Your task to perform on an android device: clear all cookies in the chrome app Image 0: 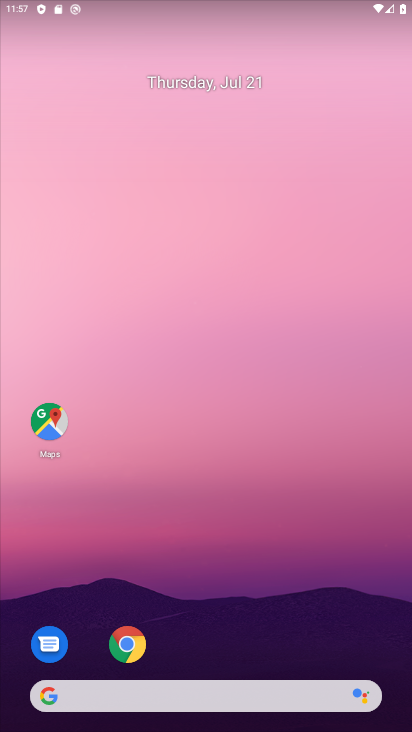
Step 0: drag from (237, 677) to (216, 188)
Your task to perform on an android device: clear all cookies in the chrome app Image 1: 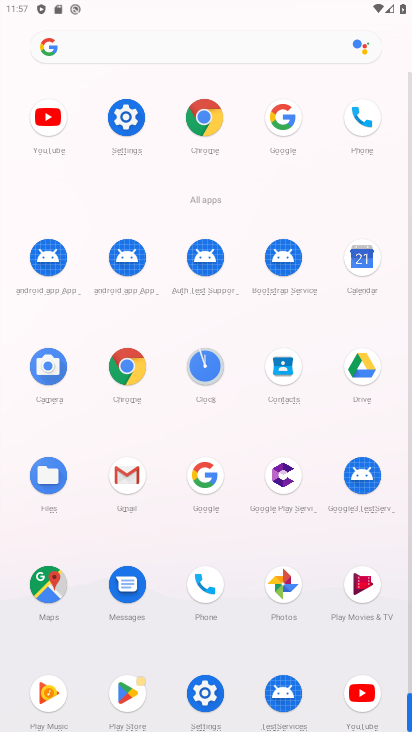
Step 1: click (189, 132)
Your task to perform on an android device: clear all cookies in the chrome app Image 2: 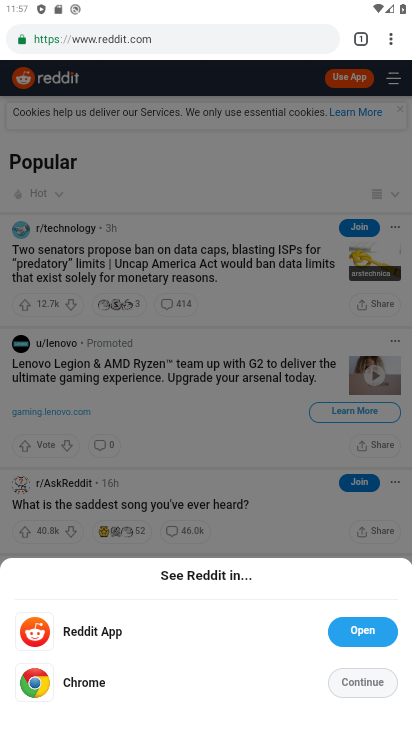
Step 2: click (383, 46)
Your task to perform on an android device: clear all cookies in the chrome app Image 3: 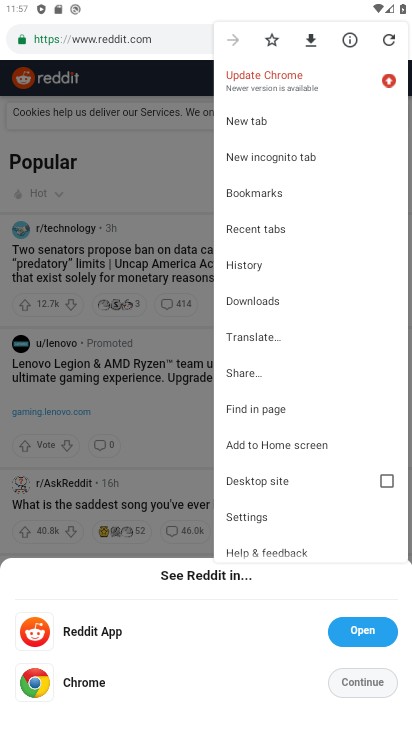
Step 3: click (257, 266)
Your task to perform on an android device: clear all cookies in the chrome app Image 4: 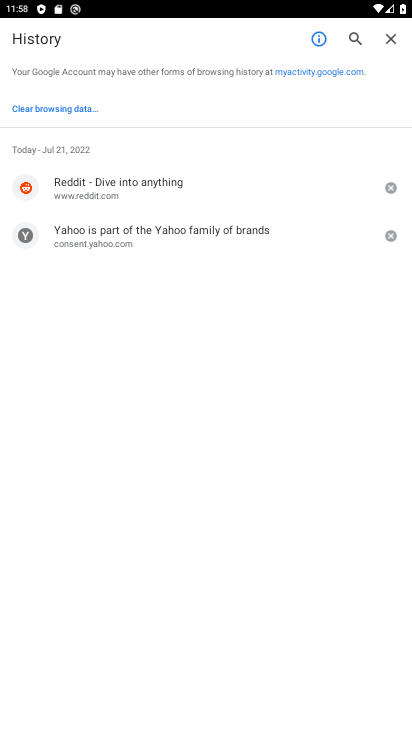
Step 4: click (58, 111)
Your task to perform on an android device: clear all cookies in the chrome app Image 5: 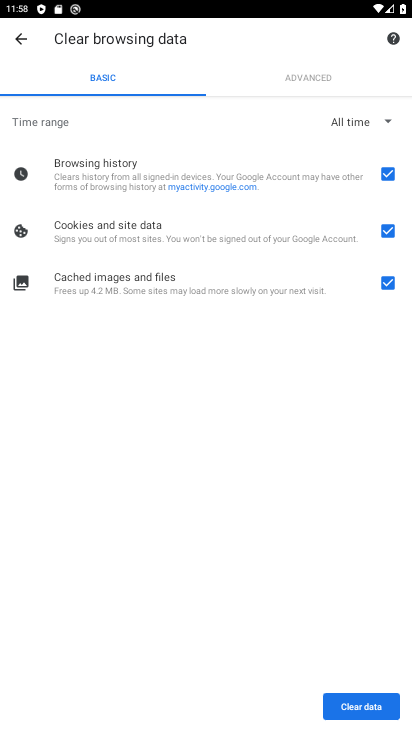
Step 5: click (394, 276)
Your task to perform on an android device: clear all cookies in the chrome app Image 6: 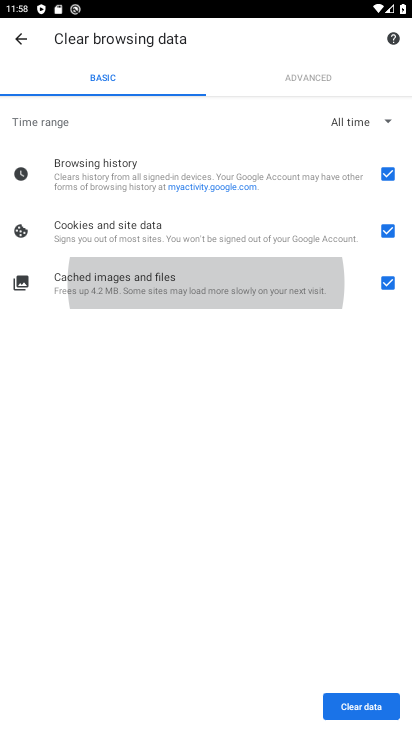
Step 6: click (385, 232)
Your task to perform on an android device: clear all cookies in the chrome app Image 7: 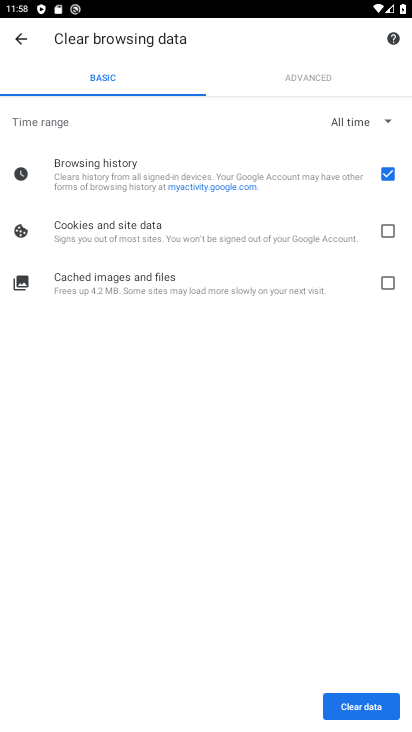
Step 7: click (367, 701)
Your task to perform on an android device: clear all cookies in the chrome app Image 8: 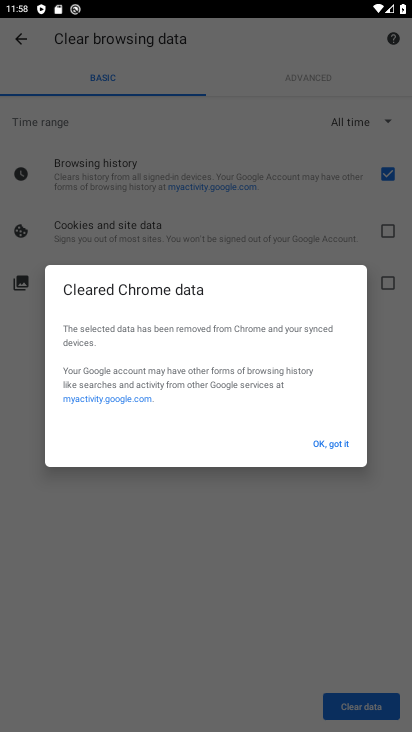
Step 8: click (333, 444)
Your task to perform on an android device: clear all cookies in the chrome app Image 9: 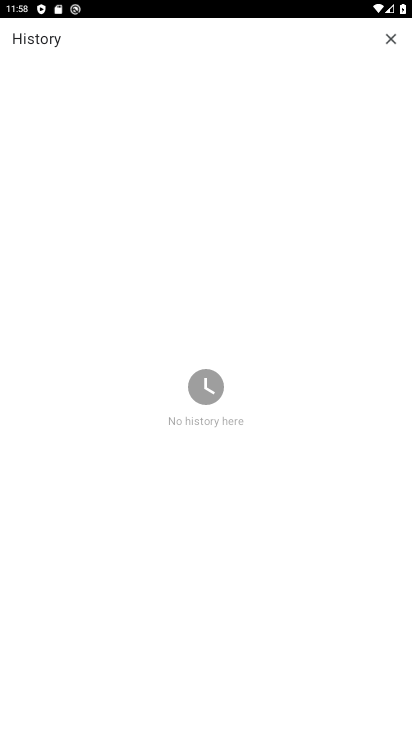
Step 9: task complete